Your task to perform on an android device: Search for flights from Helsinki to Seoul Image 0: 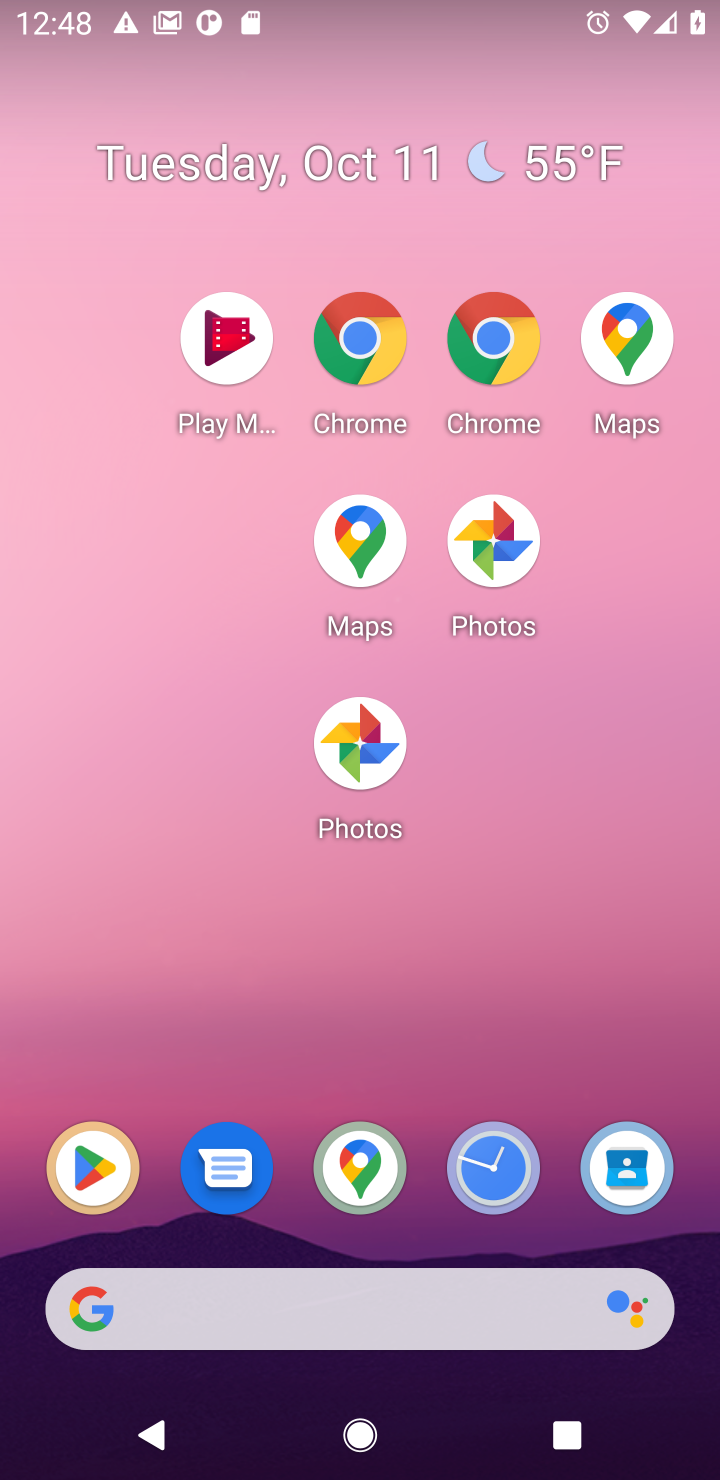
Step 0: click (584, 838)
Your task to perform on an android device: Search for flights from Helsinki to Seoul Image 1: 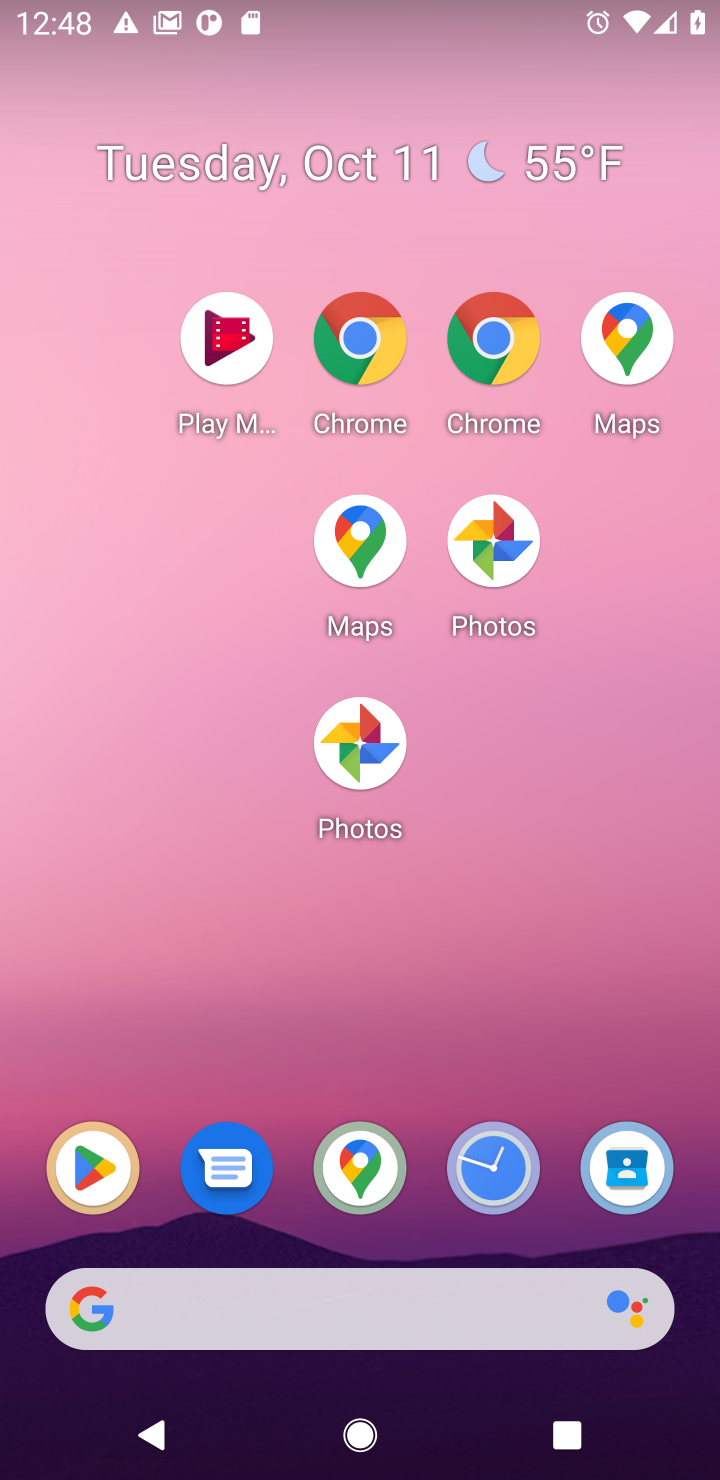
Step 1: click (562, 899)
Your task to perform on an android device: Search for flights from Helsinki to Seoul Image 2: 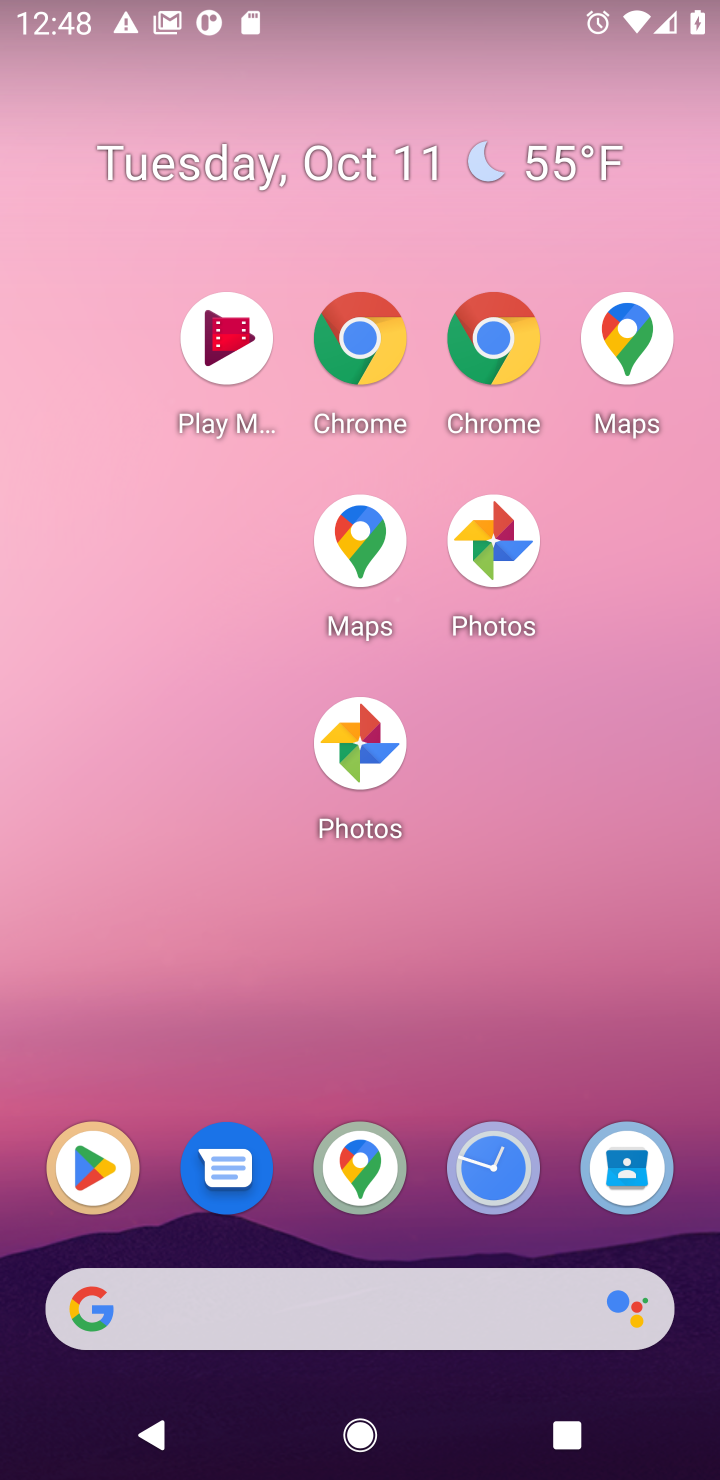
Step 2: drag from (562, 971) to (669, 132)
Your task to perform on an android device: Search for flights from Helsinki to Seoul Image 3: 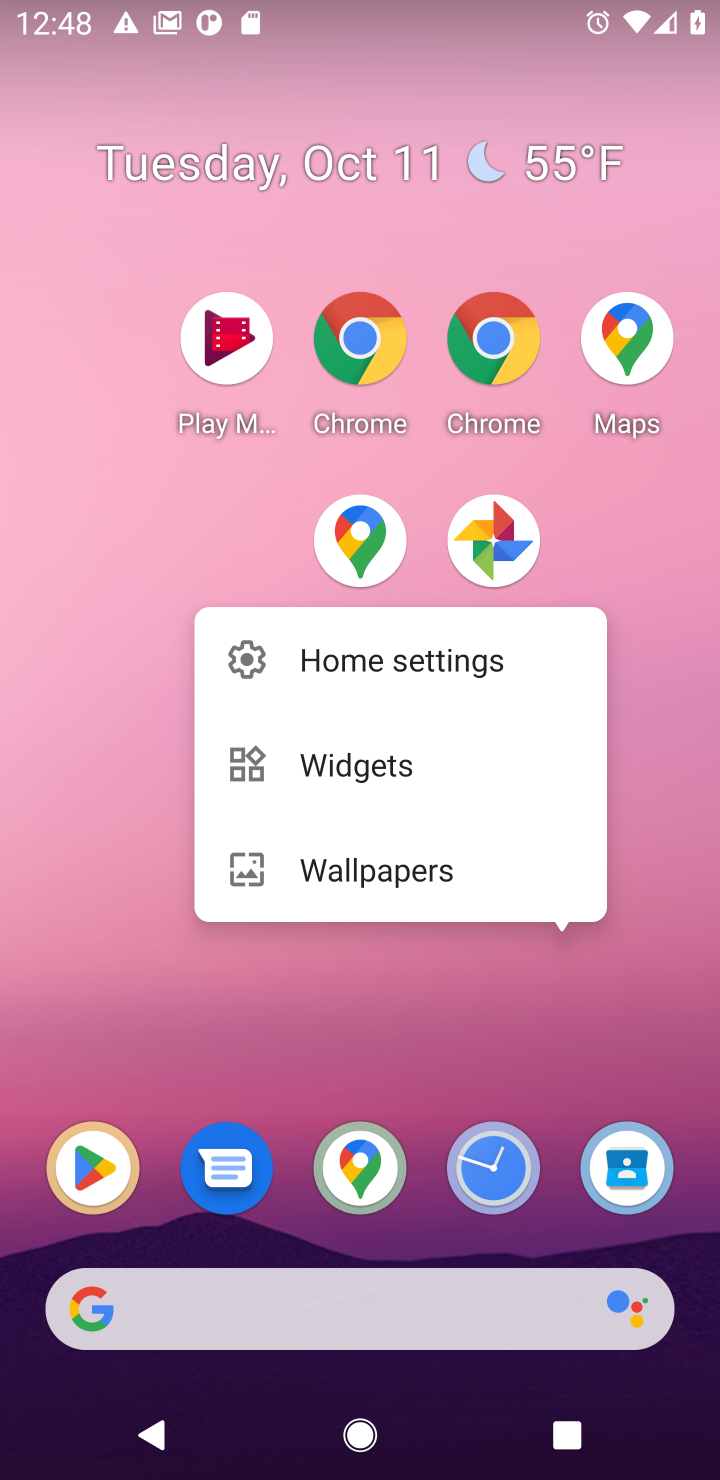
Step 3: drag from (118, 1031) to (397, 11)
Your task to perform on an android device: Search for flights from Helsinki to Seoul Image 4: 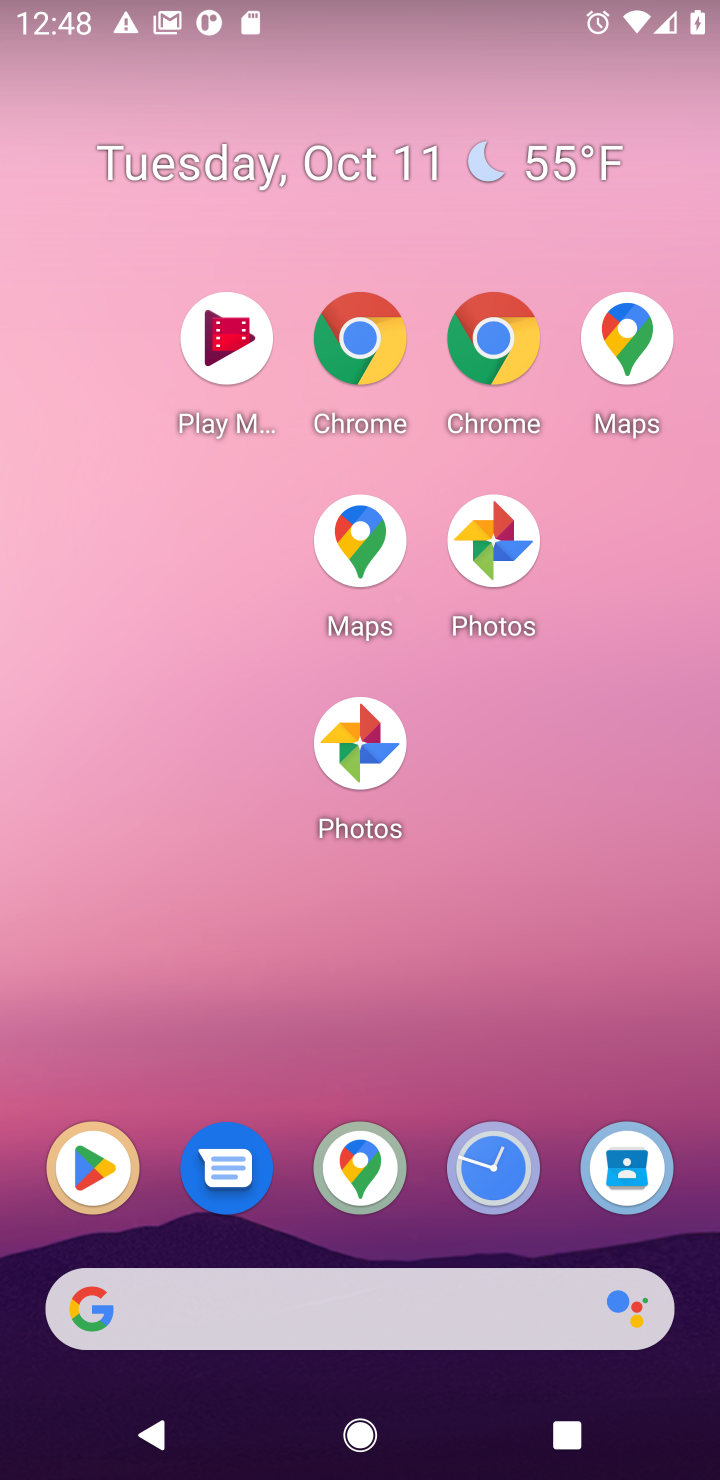
Step 4: drag from (501, 827) to (501, 323)
Your task to perform on an android device: Search for flights from Helsinki to Seoul Image 5: 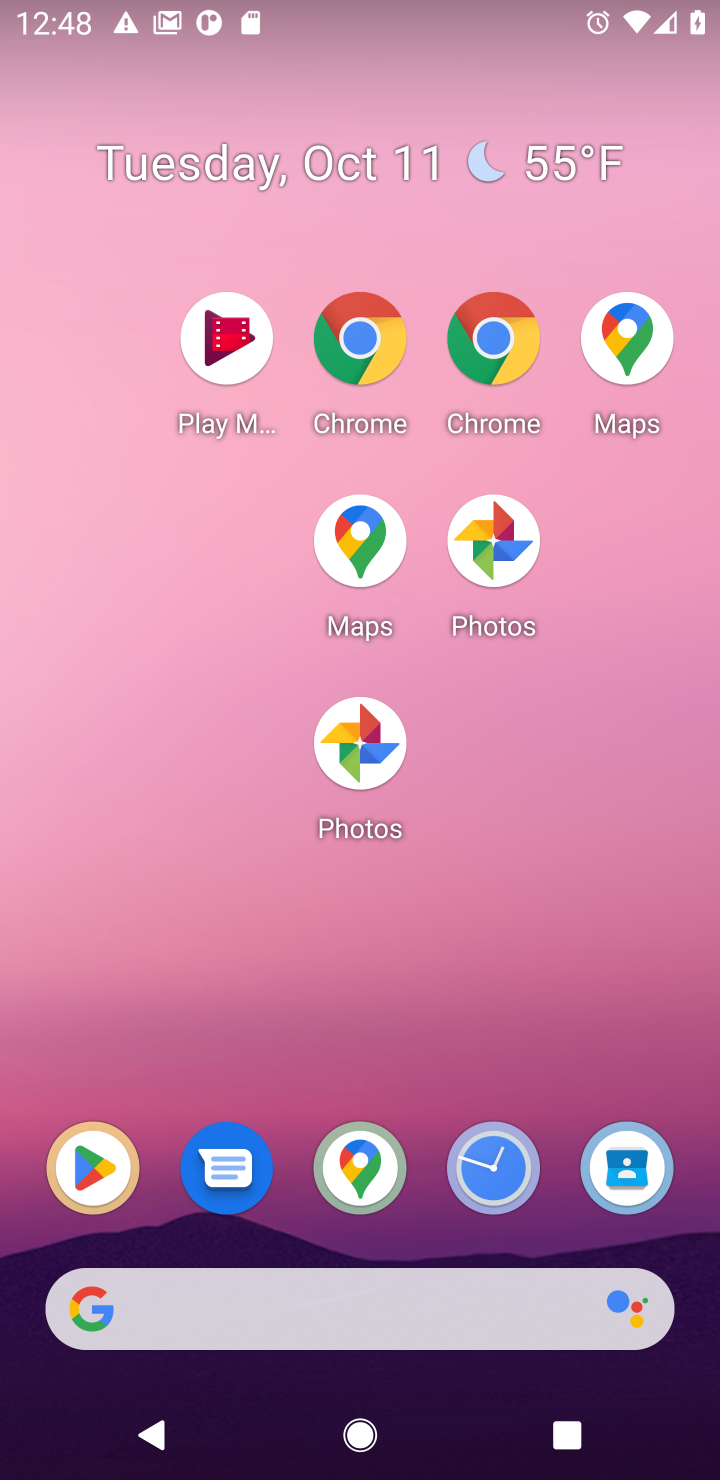
Step 5: drag from (437, 1220) to (496, 193)
Your task to perform on an android device: Search for flights from Helsinki to Seoul Image 6: 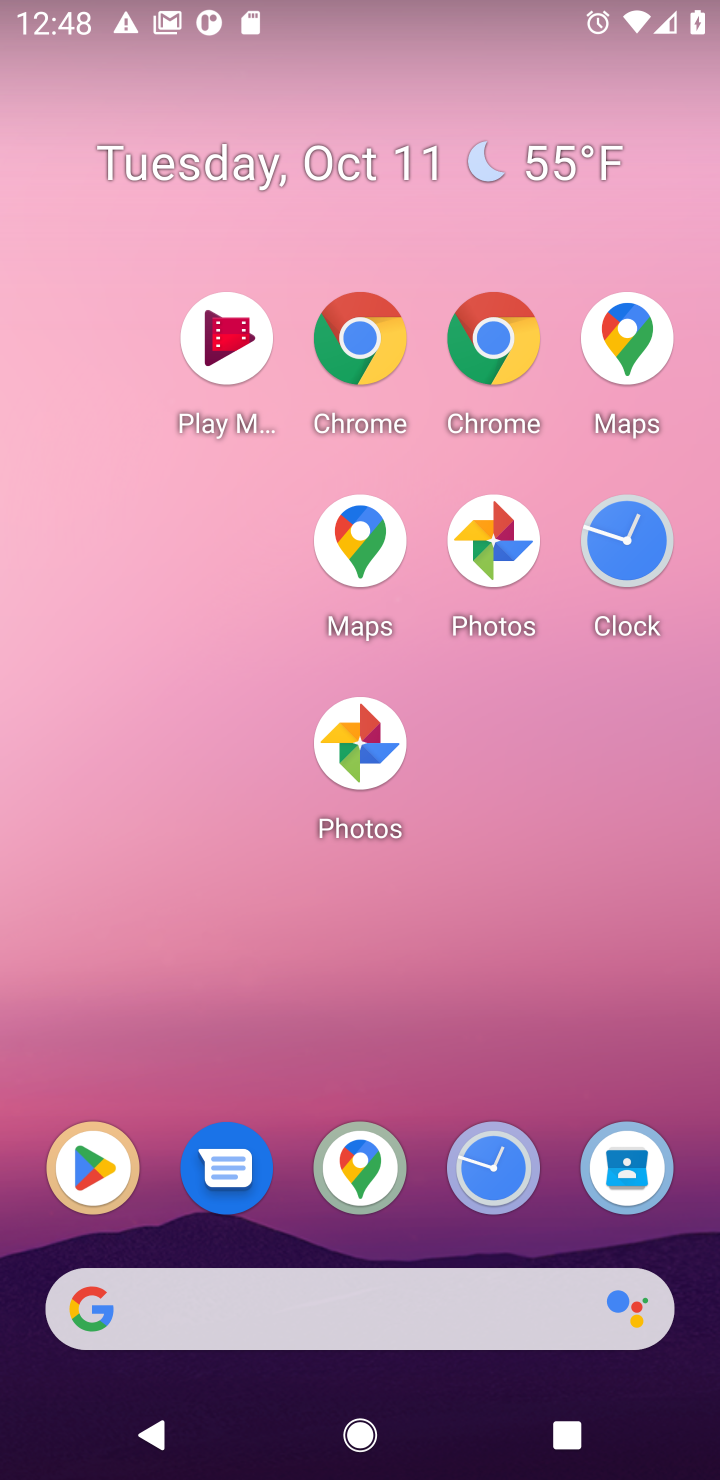
Step 6: drag from (424, 1102) to (606, 0)
Your task to perform on an android device: Search for flights from Helsinki to Seoul Image 7: 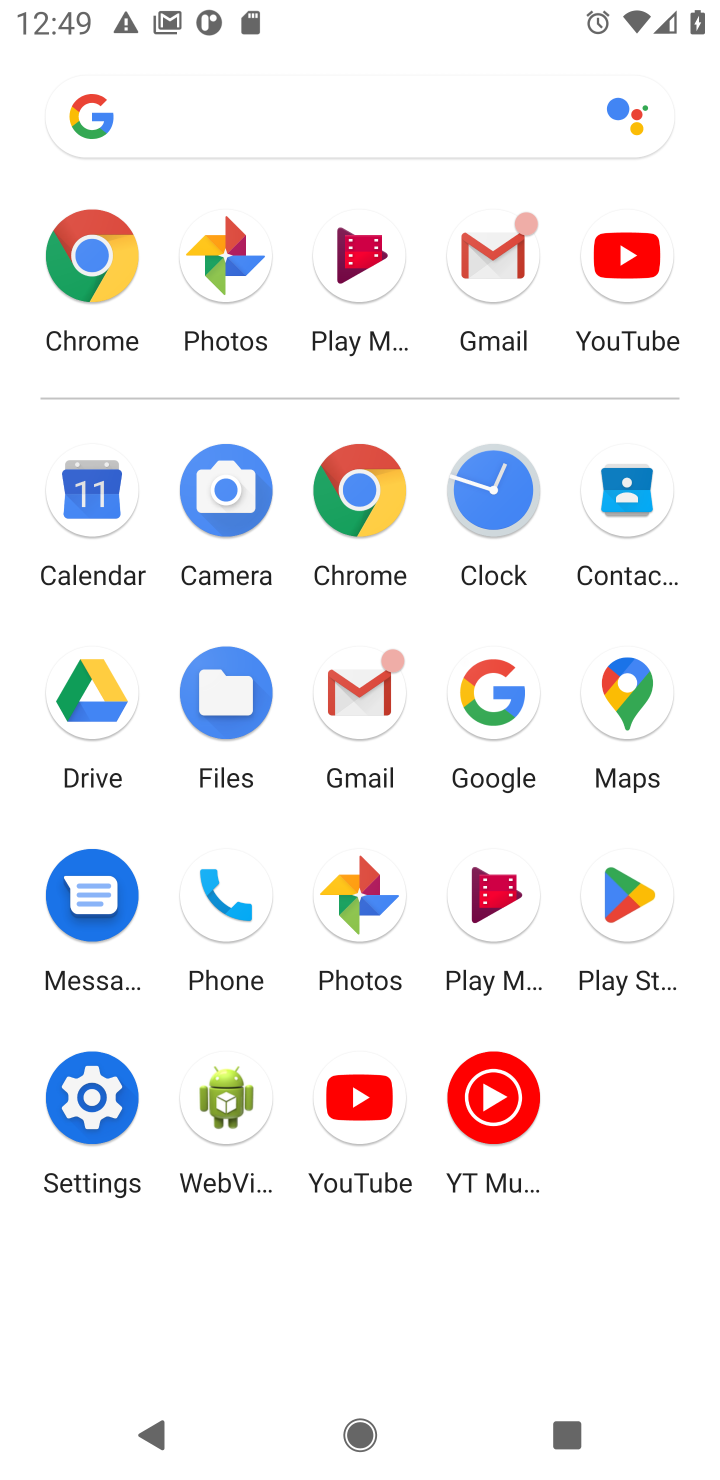
Step 7: click (504, 717)
Your task to perform on an android device: Search for flights from Helsinki to Seoul Image 8: 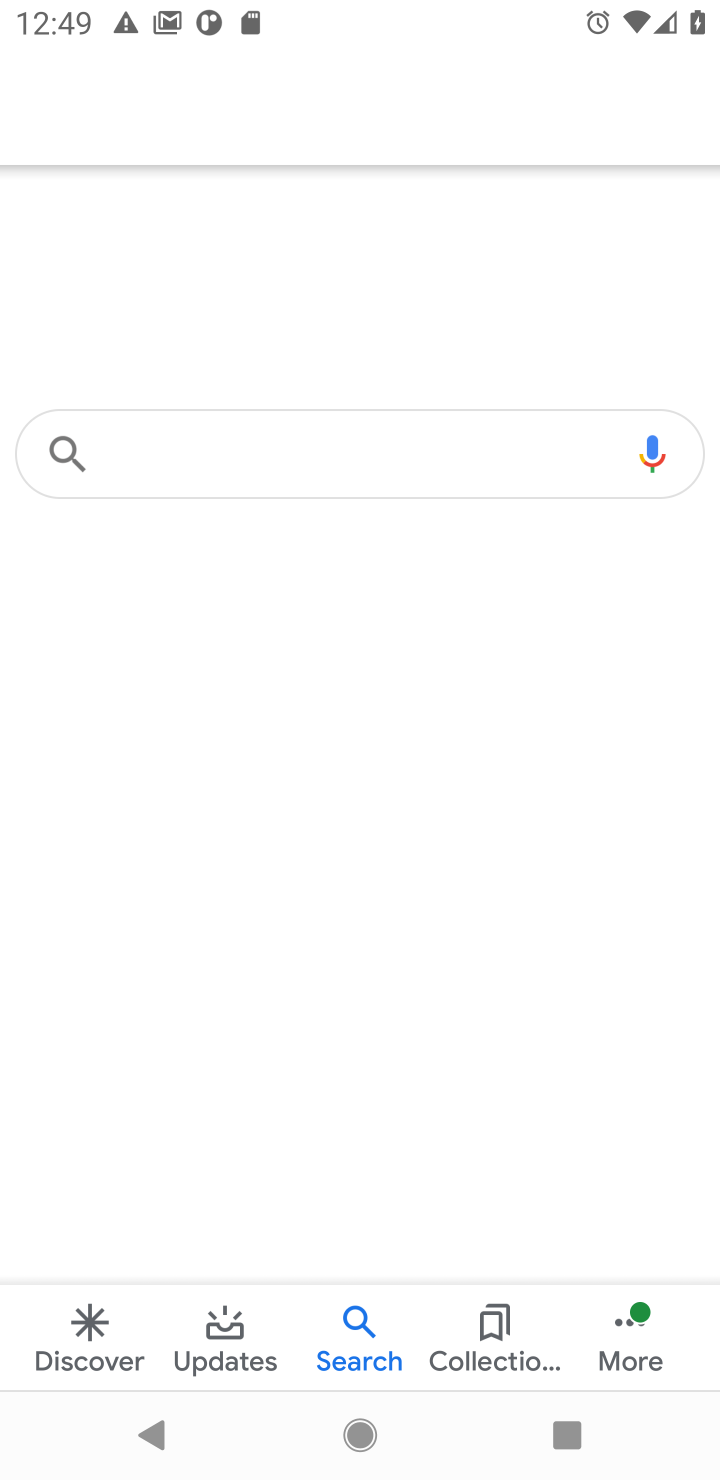
Step 8: click (469, 467)
Your task to perform on an android device: Search for flights from Helsinki to Seoul Image 9: 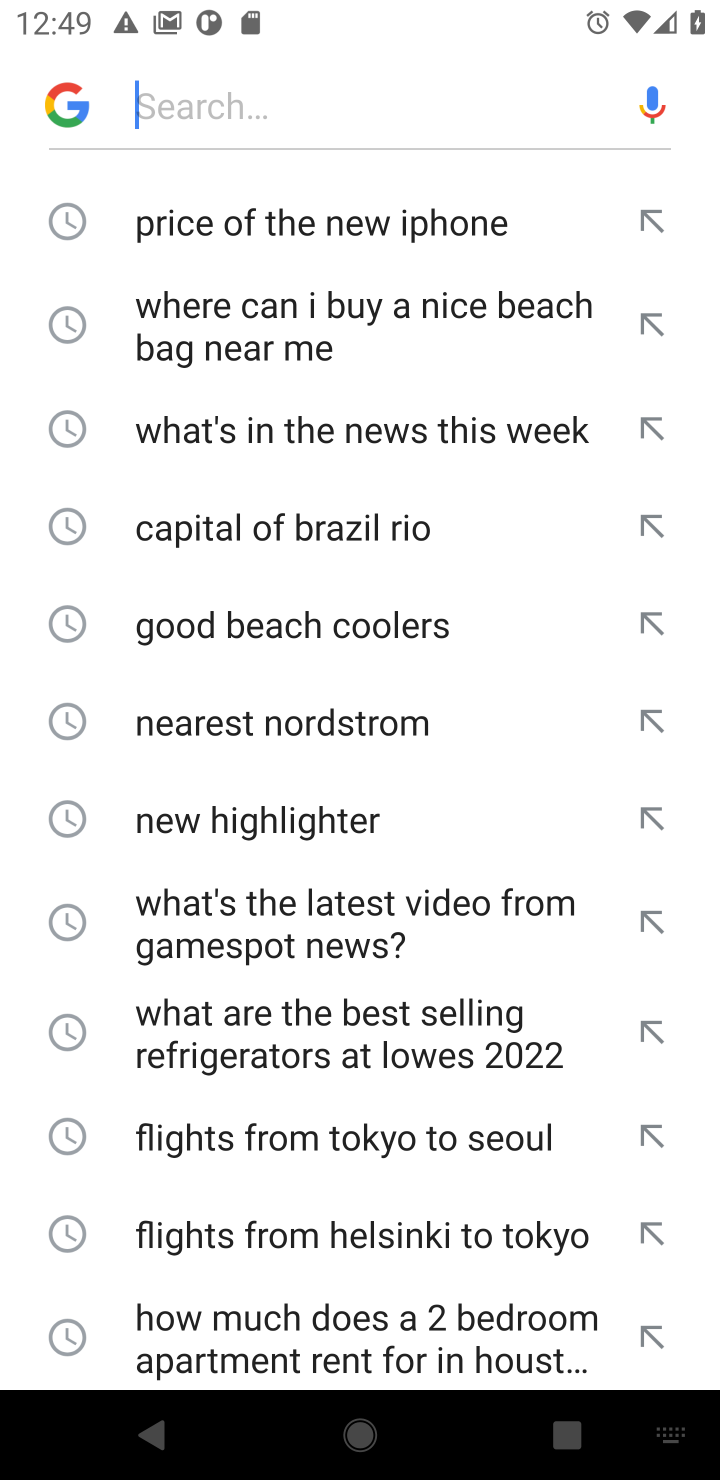
Step 9: type "flights from Helsinki to Seoul"
Your task to perform on an android device: Search for flights from Helsinki to Seoul Image 10: 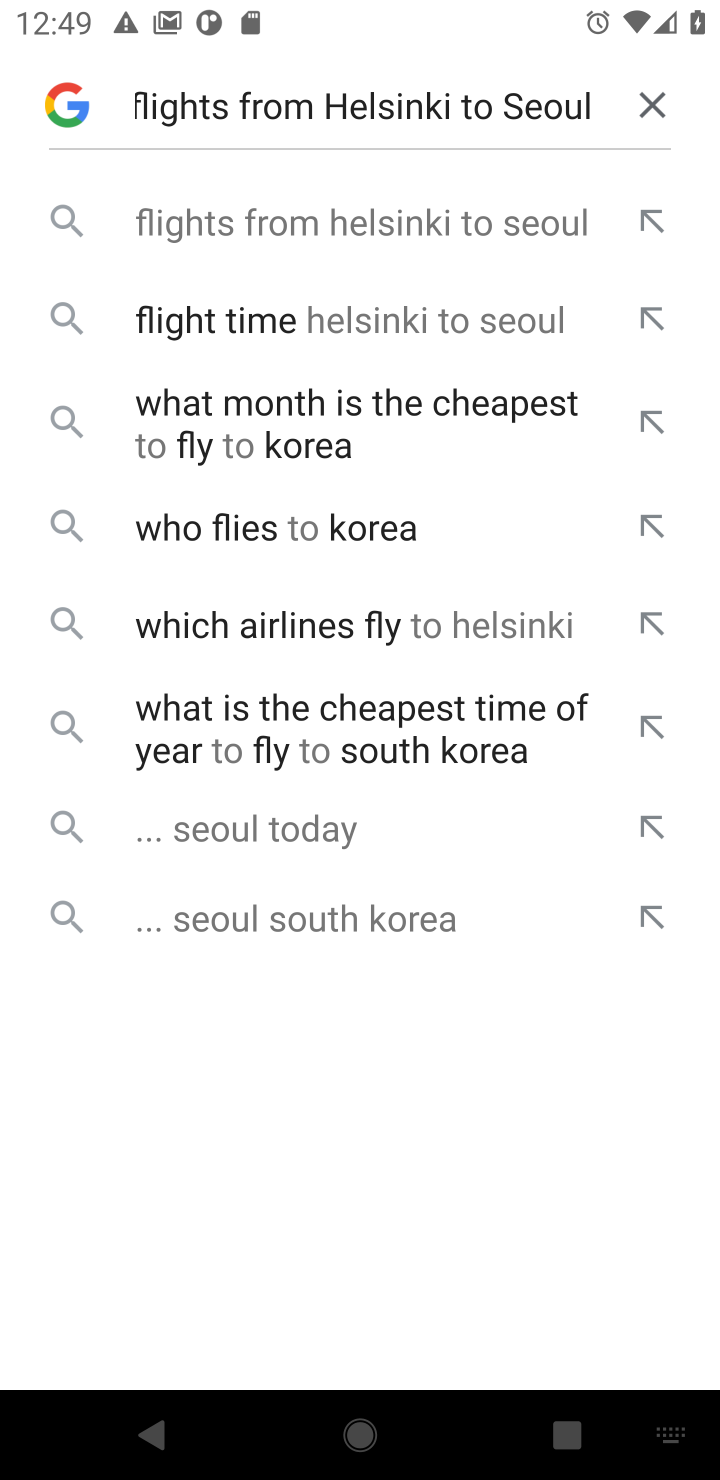
Step 10: type ""
Your task to perform on an android device: Search for flights from Helsinki to Seoul Image 11: 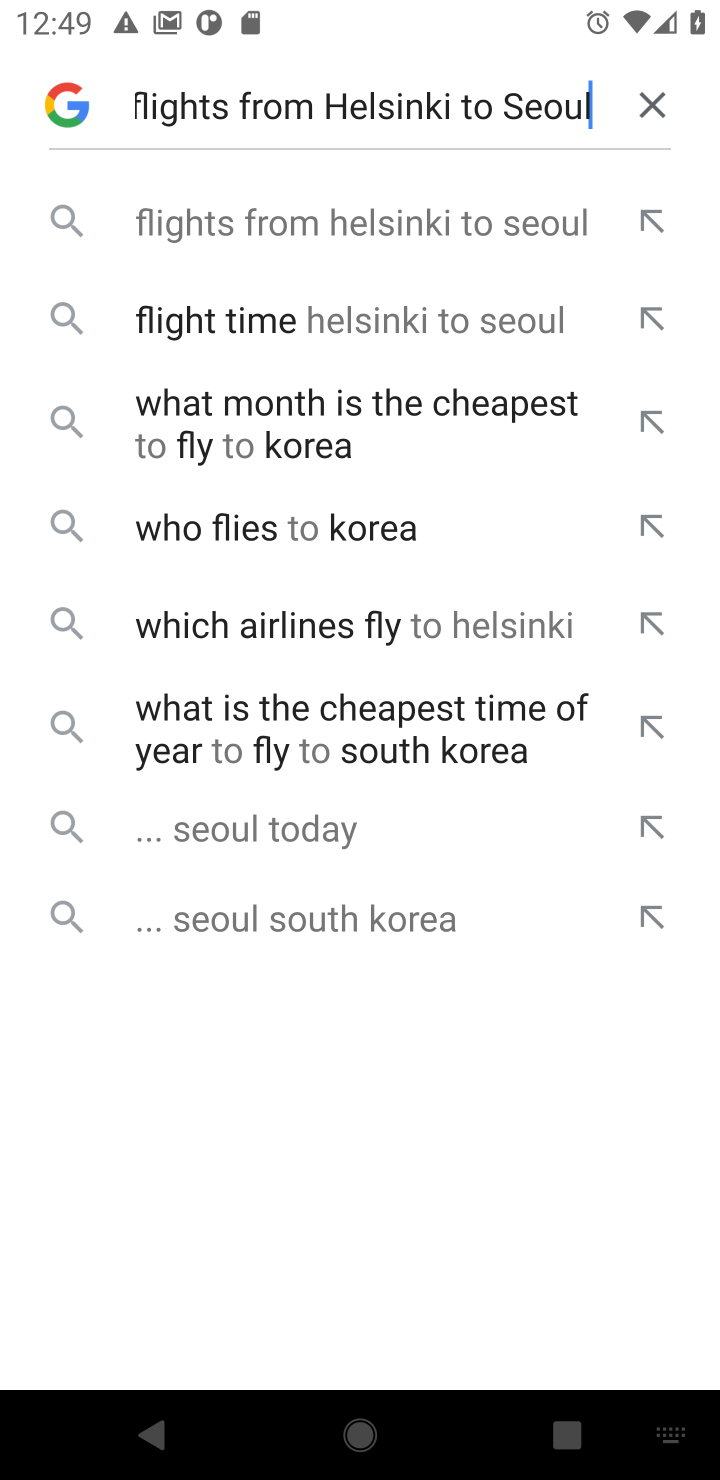
Step 11: click (311, 201)
Your task to perform on an android device: Search for flights from Helsinki to Seoul Image 12: 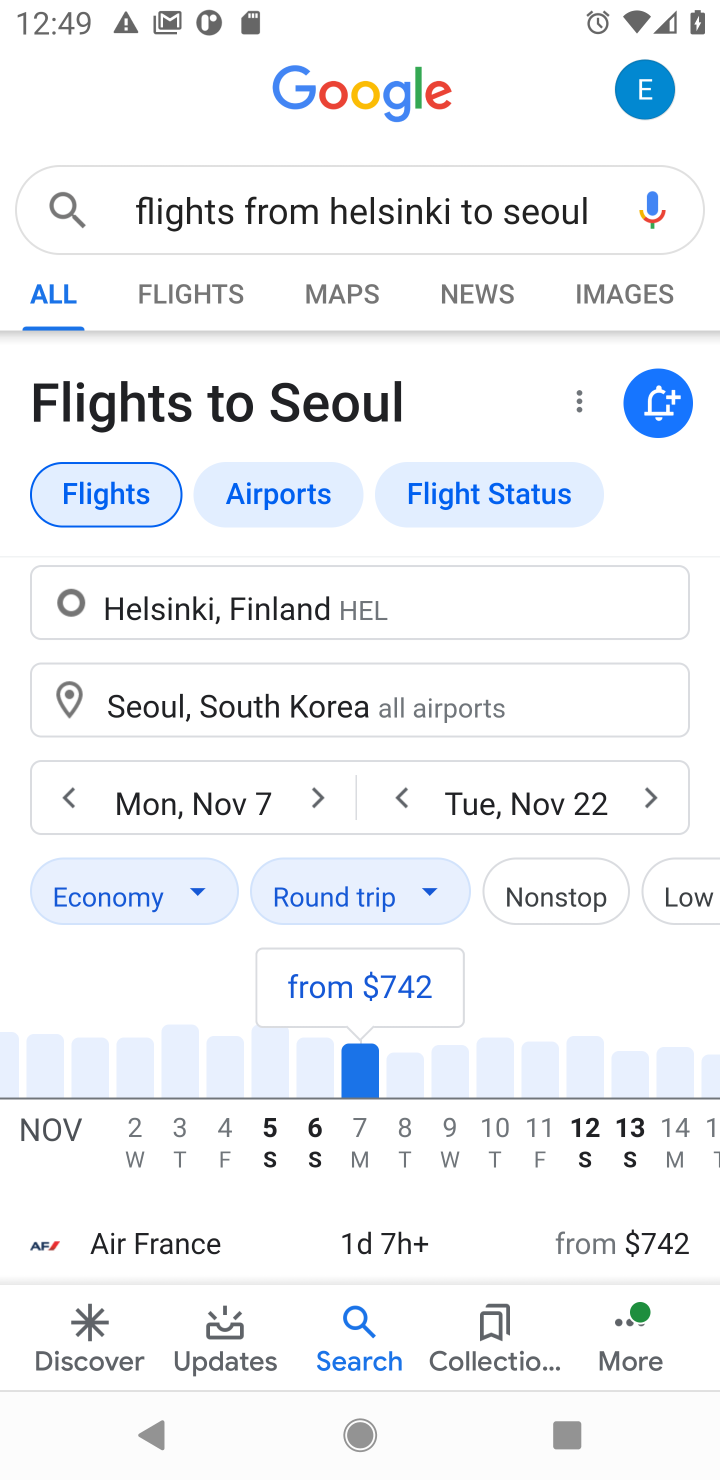
Step 12: task complete